Your task to perform on an android device: Clear the shopping cart on target.com. Search for "logitech g pro" on target.com, select the first entry, and add it to the cart. Image 0: 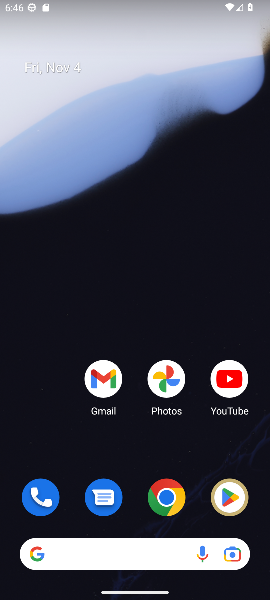
Step 0: click (162, 495)
Your task to perform on an android device: Clear the shopping cart on target.com. Search for "logitech g pro" on target.com, select the first entry, and add it to the cart. Image 1: 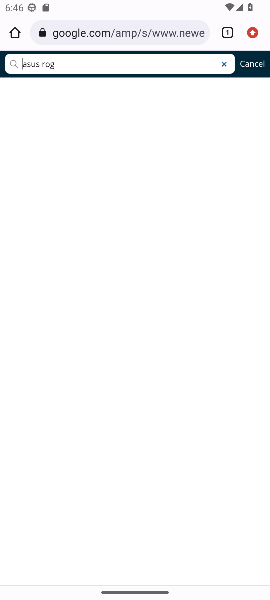
Step 1: click (125, 30)
Your task to perform on an android device: Clear the shopping cart on target.com. Search for "logitech g pro" on target.com, select the first entry, and add it to the cart. Image 2: 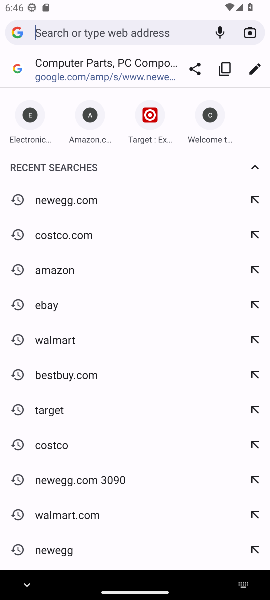
Step 2: click (48, 415)
Your task to perform on an android device: Clear the shopping cart on target.com. Search for "logitech g pro" on target.com, select the first entry, and add it to the cart. Image 3: 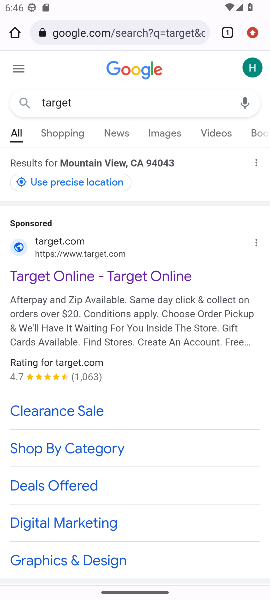
Step 3: drag from (133, 473) to (137, 220)
Your task to perform on an android device: Clear the shopping cart on target.com. Search for "logitech g pro" on target.com, select the first entry, and add it to the cart. Image 4: 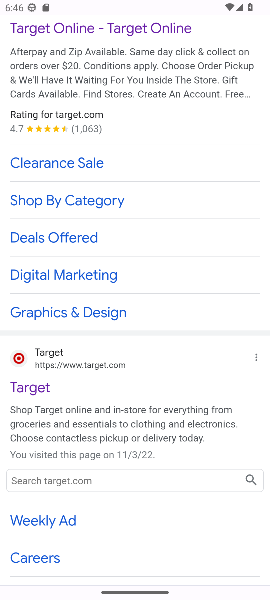
Step 4: click (40, 372)
Your task to perform on an android device: Clear the shopping cart on target.com. Search for "logitech g pro" on target.com, select the first entry, and add it to the cart. Image 5: 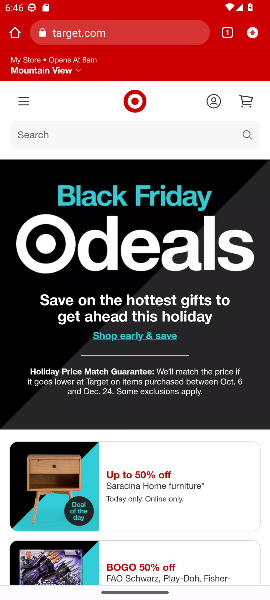
Step 5: click (249, 103)
Your task to perform on an android device: Clear the shopping cart on target.com. Search for "logitech g pro" on target.com, select the first entry, and add it to the cart. Image 6: 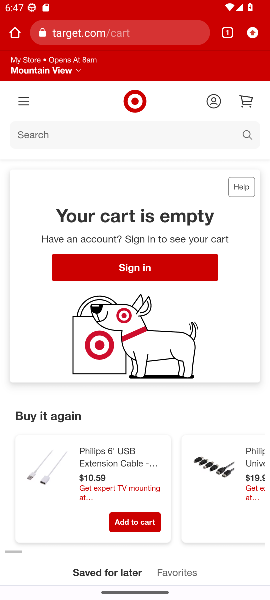
Step 6: click (242, 136)
Your task to perform on an android device: Clear the shopping cart on target.com. Search for "logitech g pro" on target.com, select the first entry, and add it to the cart. Image 7: 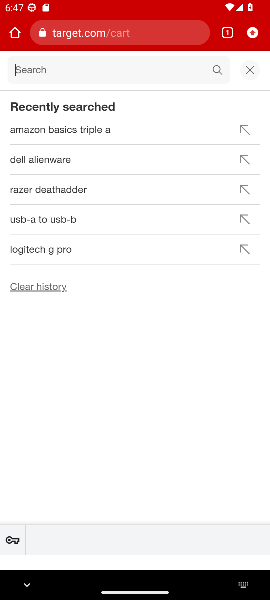
Step 7: type "logitech g pro"
Your task to perform on an android device: Clear the shopping cart on target.com. Search for "logitech g pro" on target.com, select the first entry, and add it to the cart. Image 8: 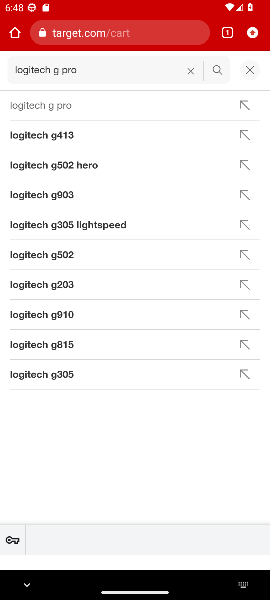
Step 8: click (46, 112)
Your task to perform on an android device: Clear the shopping cart on target.com. Search for "logitech g pro" on target.com, select the first entry, and add it to the cart. Image 9: 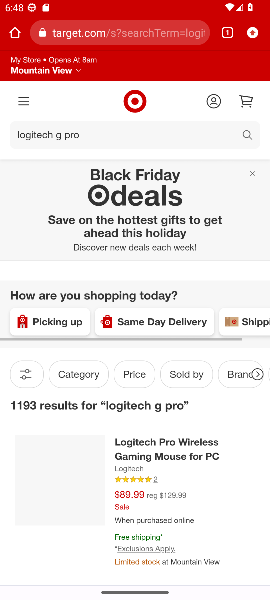
Step 9: task complete